Your task to perform on an android device: Search for sushi restaurants on Maps Image 0: 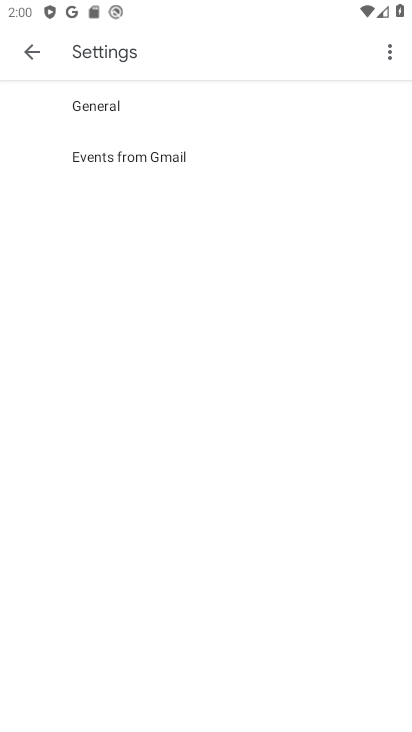
Step 0: press home button
Your task to perform on an android device: Search for sushi restaurants on Maps Image 1: 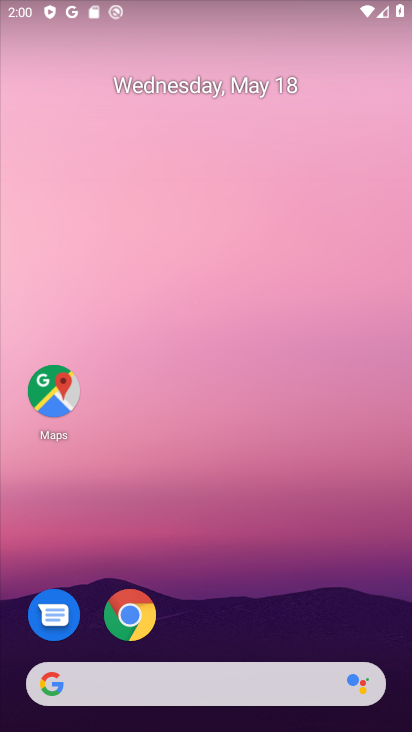
Step 1: click (55, 379)
Your task to perform on an android device: Search for sushi restaurants on Maps Image 2: 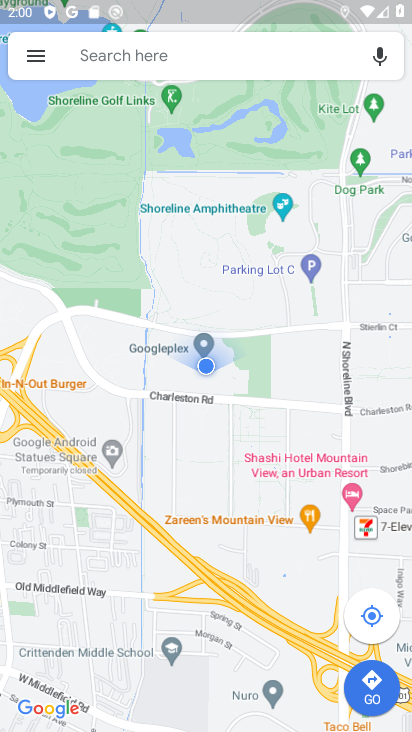
Step 2: click (178, 56)
Your task to perform on an android device: Search for sushi restaurants on Maps Image 3: 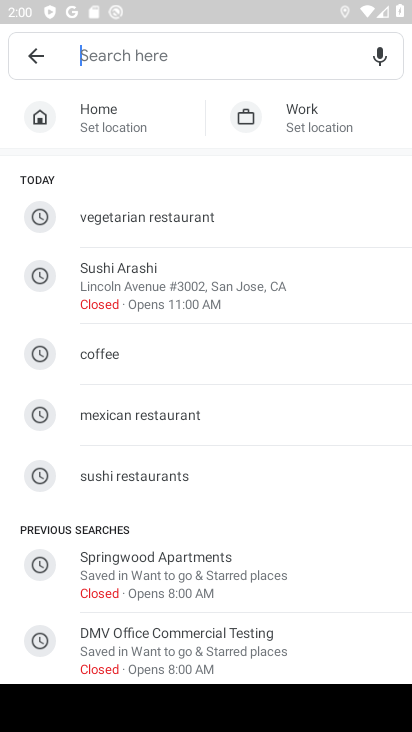
Step 3: click (180, 483)
Your task to perform on an android device: Search for sushi restaurants on Maps Image 4: 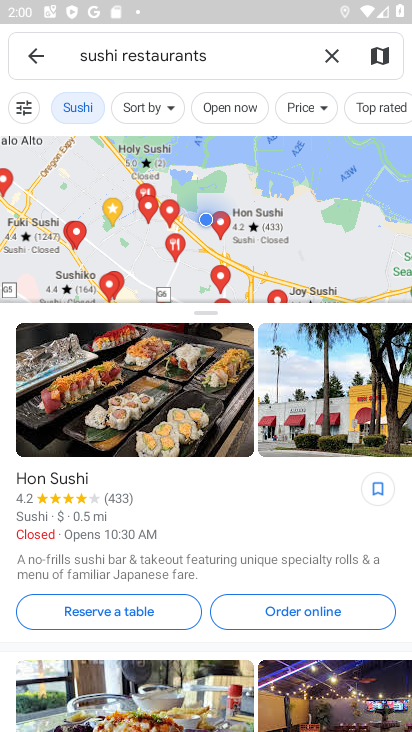
Step 4: task complete